Your task to perform on an android device: Set the phone to "Do not disturb". Image 0: 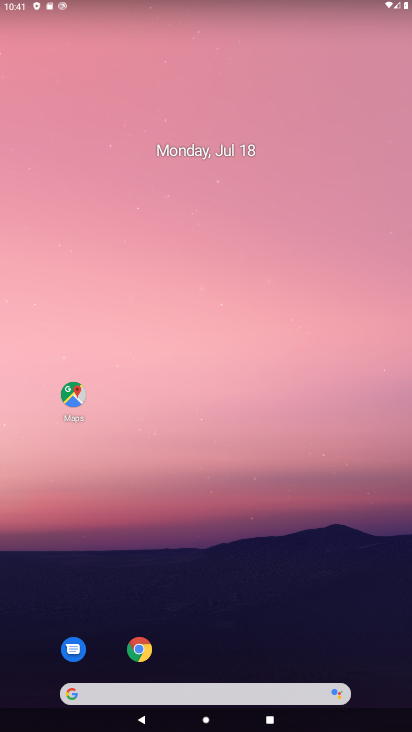
Step 0: drag from (180, 627) to (274, 180)
Your task to perform on an android device: Set the phone to "Do not disturb". Image 1: 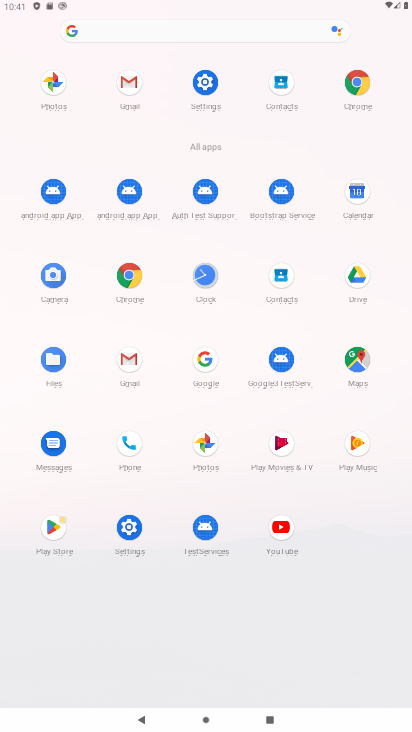
Step 1: click (130, 525)
Your task to perform on an android device: Set the phone to "Do not disturb". Image 2: 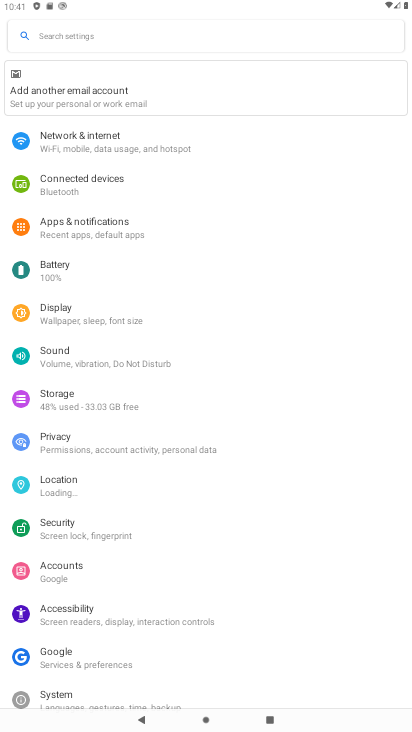
Step 2: click (141, 231)
Your task to perform on an android device: Set the phone to "Do not disturb". Image 3: 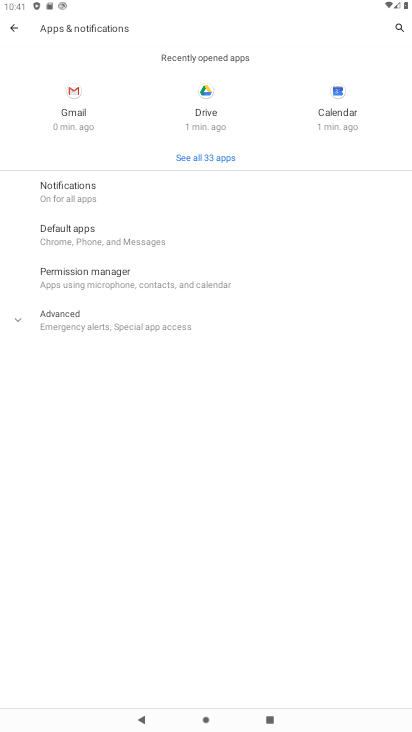
Step 3: click (121, 325)
Your task to perform on an android device: Set the phone to "Do not disturb". Image 4: 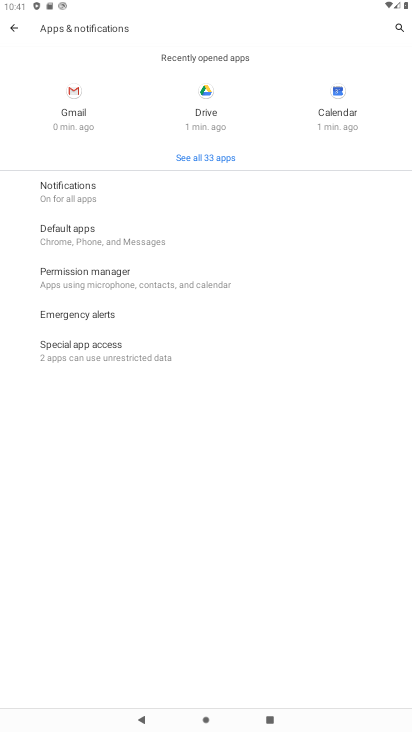
Step 4: click (144, 188)
Your task to perform on an android device: Set the phone to "Do not disturb". Image 5: 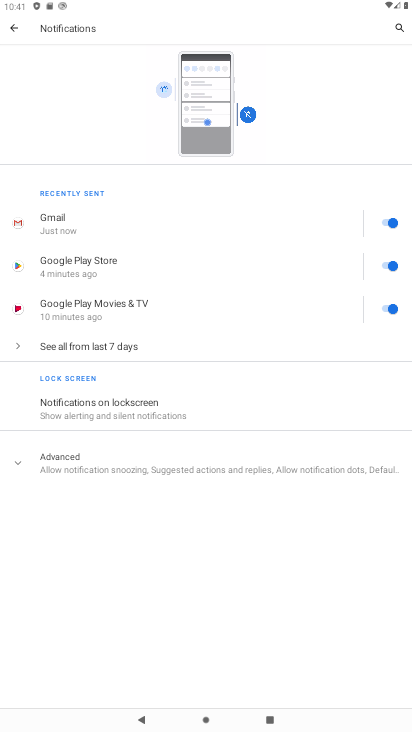
Step 5: click (165, 463)
Your task to perform on an android device: Set the phone to "Do not disturb". Image 6: 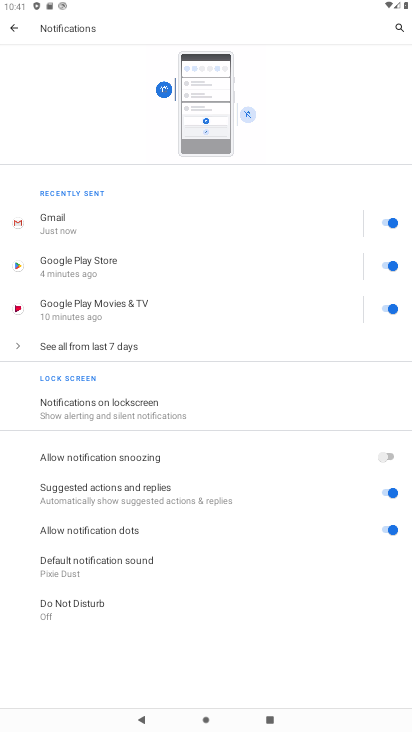
Step 6: click (136, 622)
Your task to perform on an android device: Set the phone to "Do not disturb". Image 7: 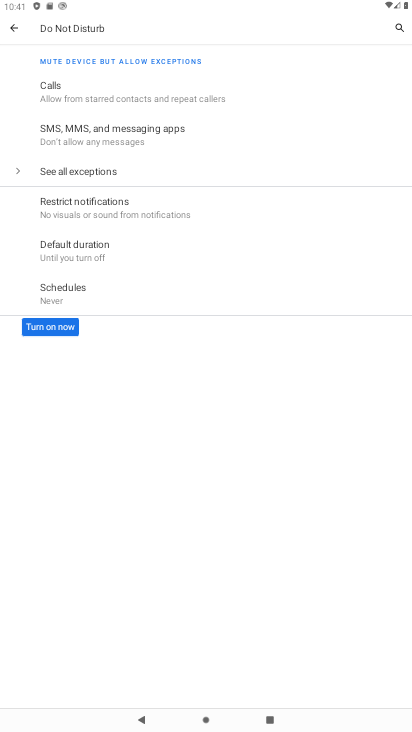
Step 7: click (39, 329)
Your task to perform on an android device: Set the phone to "Do not disturb". Image 8: 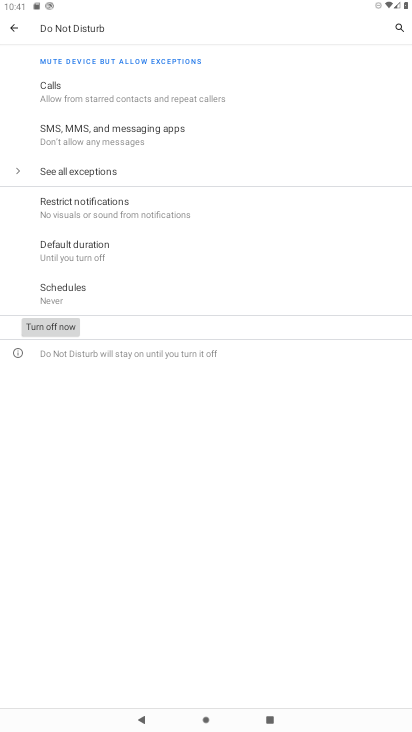
Step 8: task complete